Your task to perform on an android device: allow cookies in the chrome app Image 0: 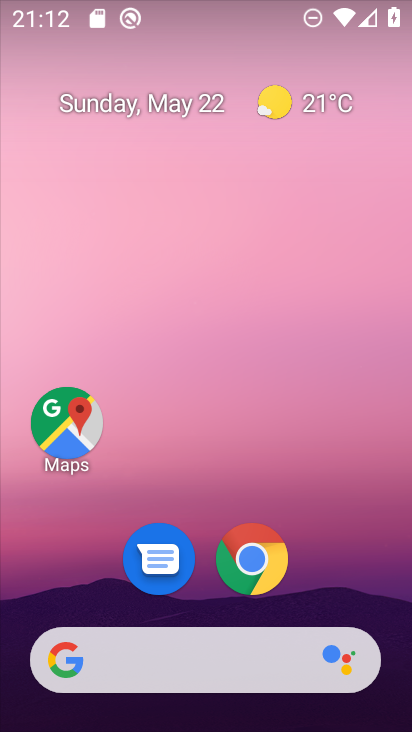
Step 0: drag from (308, 638) to (295, 384)
Your task to perform on an android device: allow cookies in the chrome app Image 1: 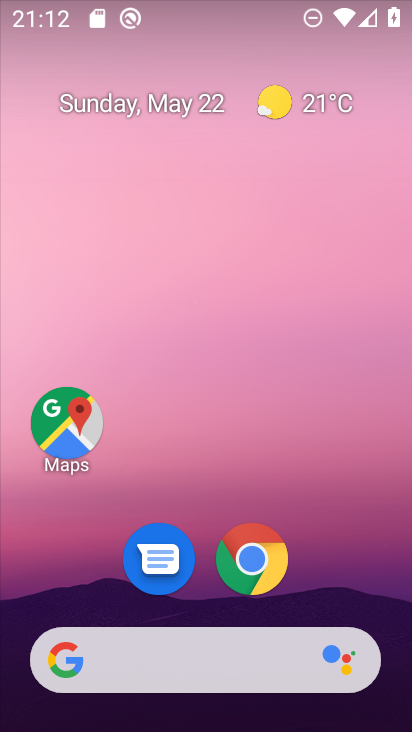
Step 1: drag from (289, 616) to (231, 267)
Your task to perform on an android device: allow cookies in the chrome app Image 2: 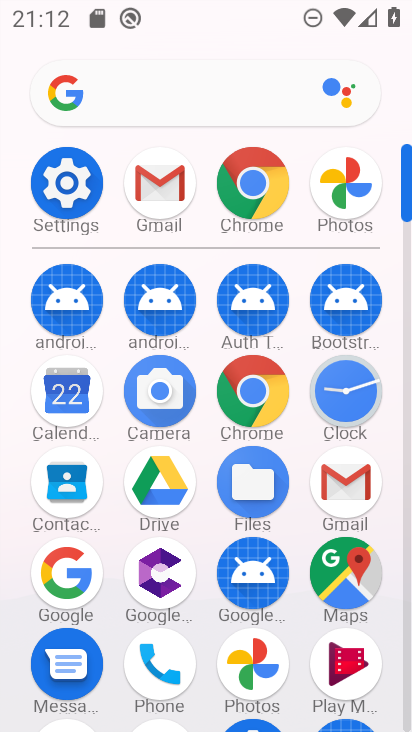
Step 2: click (240, 197)
Your task to perform on an android device: allow cookies in the chrome app Image 3: 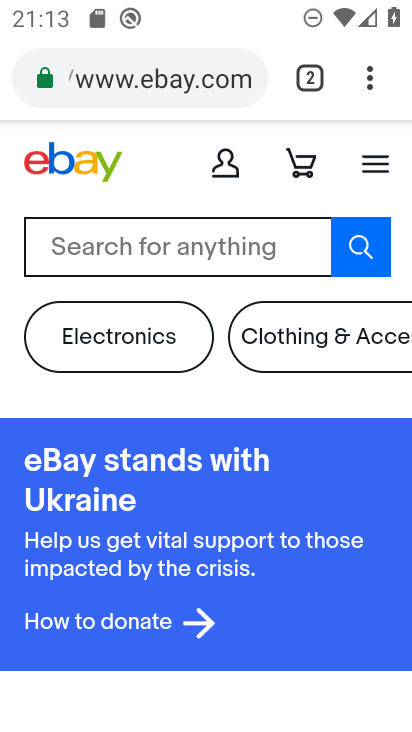
Step 3: click (354, 88)
Your task to perform on an android device: allow cookies in the chrome app Image 4: 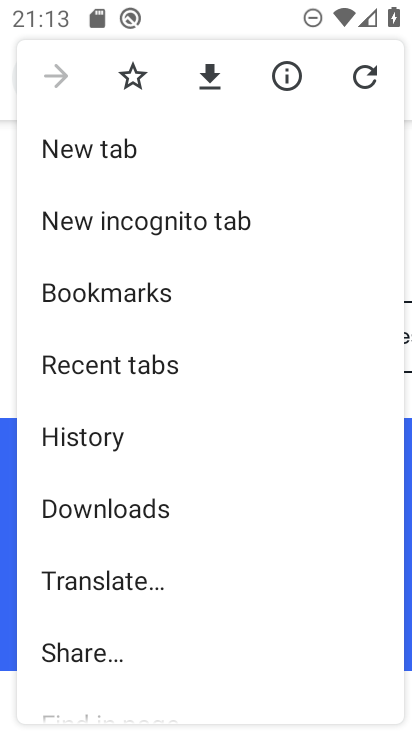
Step 4: drag from (144, 639) to (120, 249)
Your task to perform on an android device: allow cookies in the chrome app Image 5: 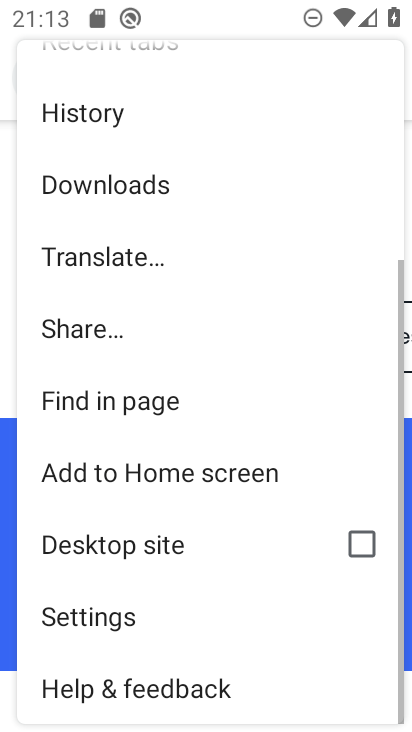
Step 5: click (103, 619)
Your task to perform on an android device: allow cookies in the chrome app Image 6: 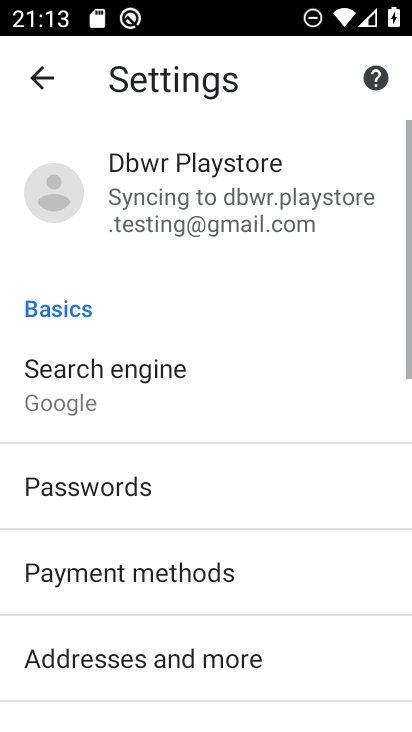
Step 6: drag from (191, 646) to (214, 341)
Your task to perform on an android device: allow cookies in the chrome app Image 7: 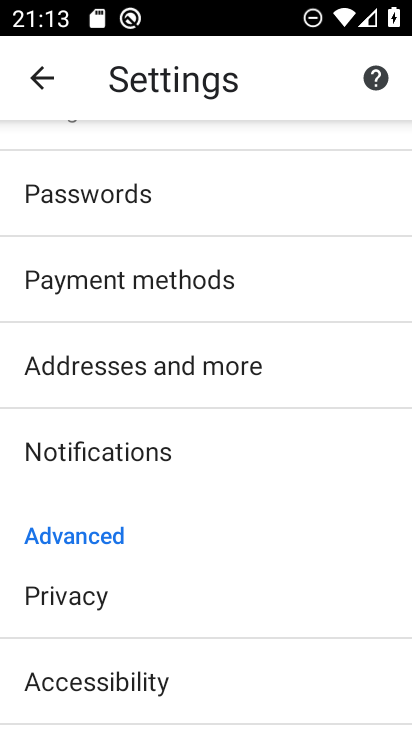
Step 7: drag from (140, 646) to (184, 502)
Your task to perform on an android device: allow cookies in the chrome app Image 8: 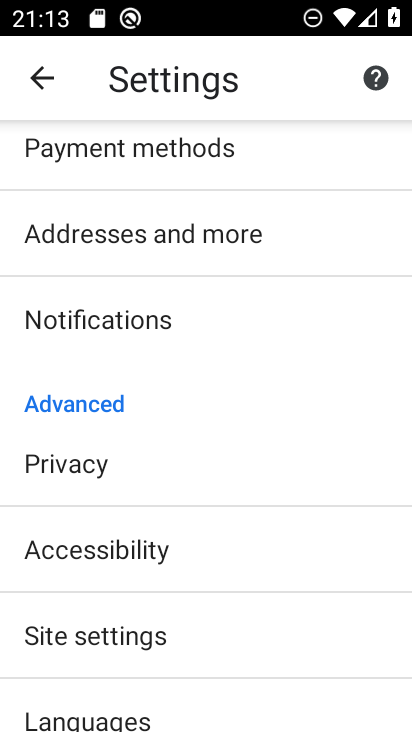
Step 8: click (137, 630)
Your task to perform on an android device: allow cookies in the chrome app Image 9: 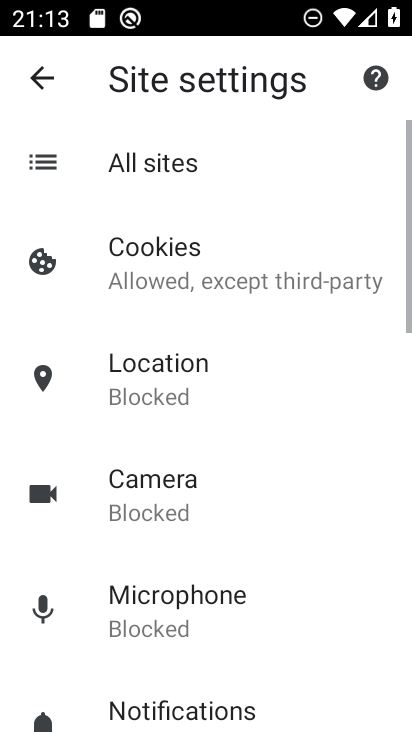
Step 9: drag from (154, 679) to (220, 473)
Your task to perform on an android device: allow cookies in the chrome app Image 10: 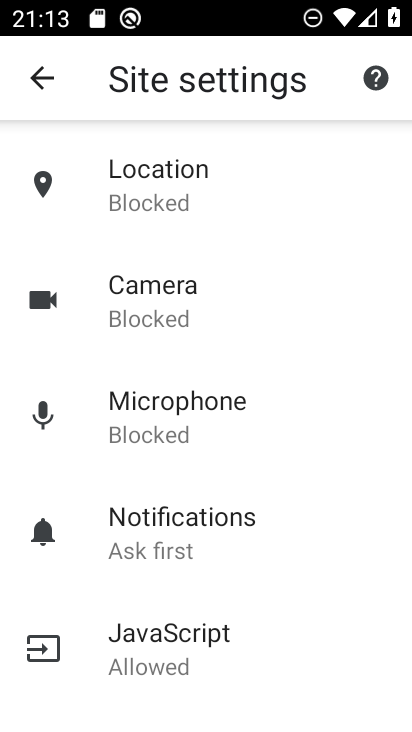
Step 10: drag from (152, 614) to (186, 675)
Your task to perform on an android device: allow cookies in the chrome app Image 11: 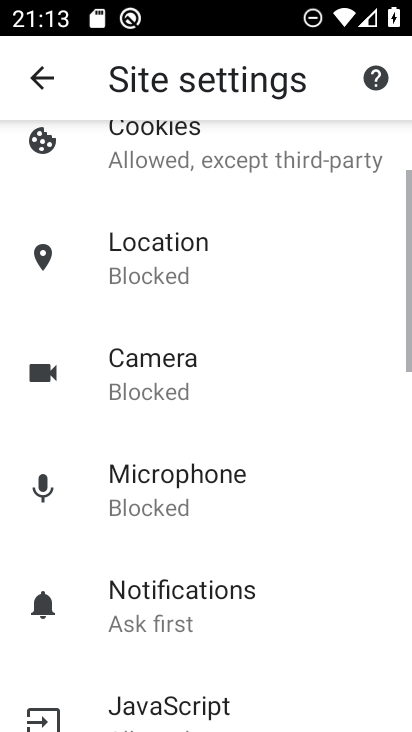
Step 11: click (141, 176)
Your task to perform on an android device: allow cookies in the chrome app Image 12: 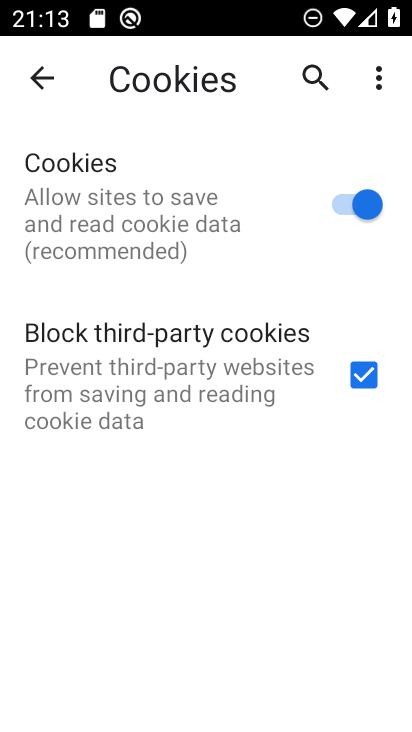
Step 12: click (340, 222)
Your task to perform on an android device: allow cookies in the chrome app Image 13: 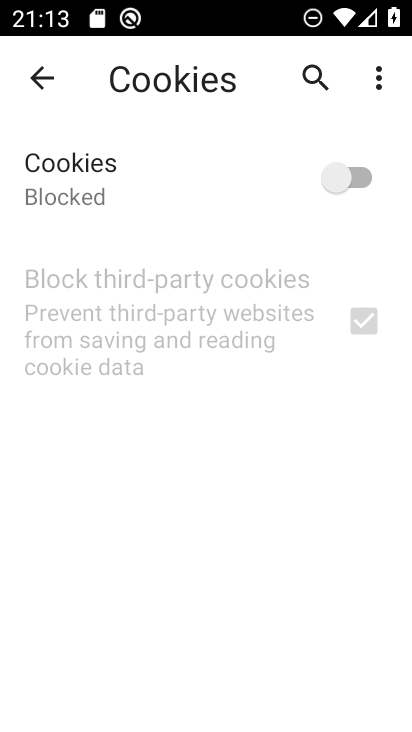
Step 13: click (353, 175)
Your task to perform on an android device: allow cookies in the chrome app Image 14: 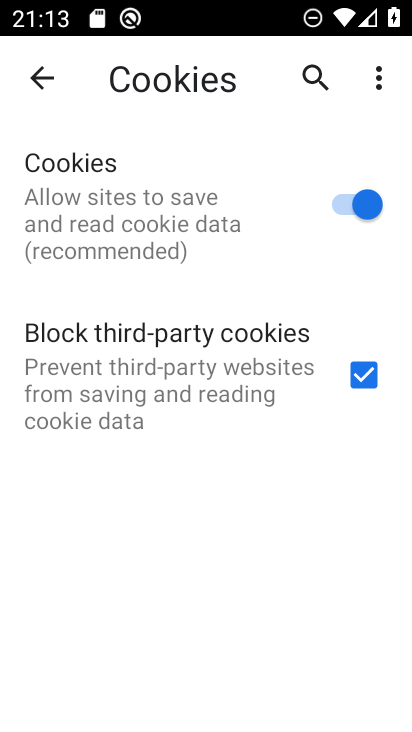
Step 14: task complete